Your task to perform on an android device: set default search engine in the chrome app Image 0: 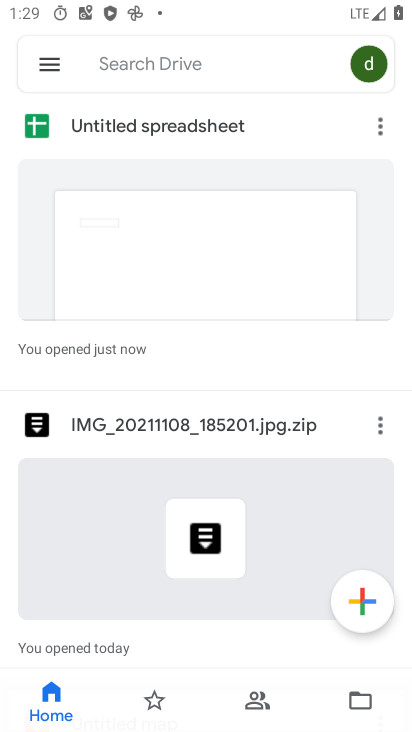
Step 0: press home button
Your task to perform on an android device: set default search engine in the chrome app Image 1: 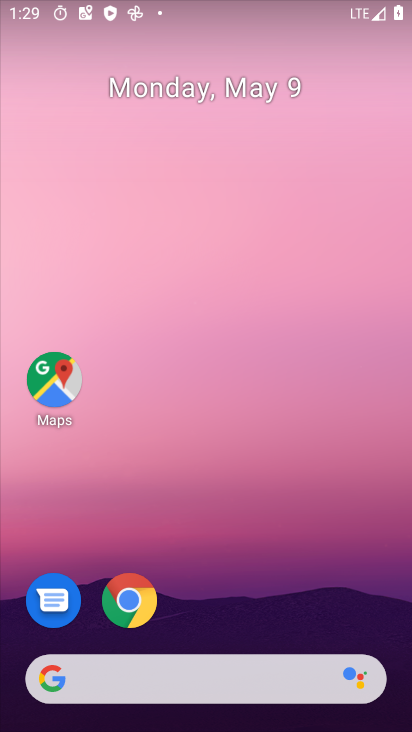
Step 1: drag from (233, 614) to (208, 256)
Your task to perform on an android device: set default search engine in the chrome app Image 2: 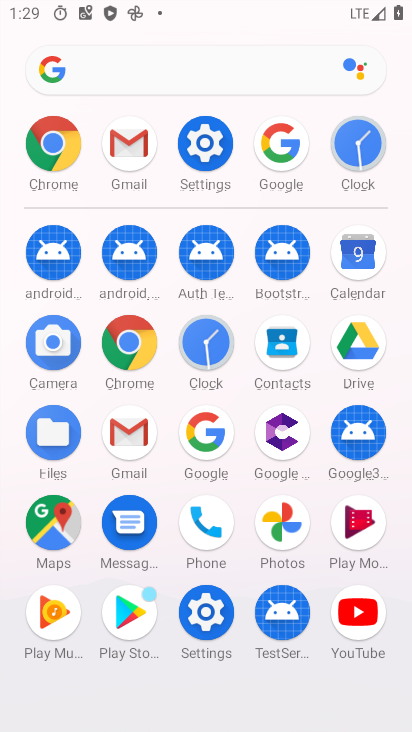
Step 2: click (131, 349)
Your task to perform on an android device: set default search engine in the chrome app Image 3: 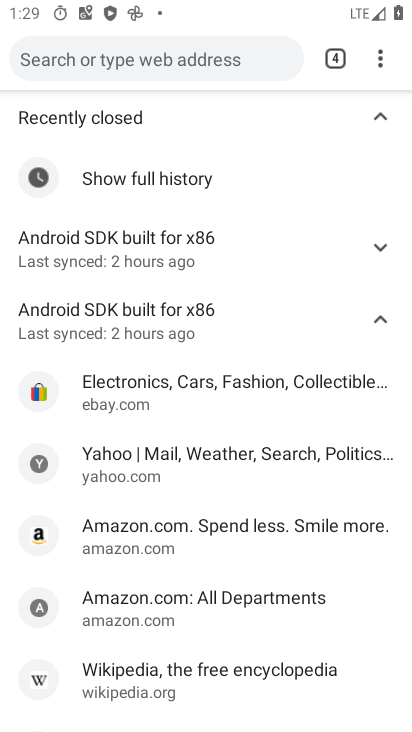
Step 3: click (375, 65)
Your task to perform on an android device: set default search engine in the chrome app Image 4: 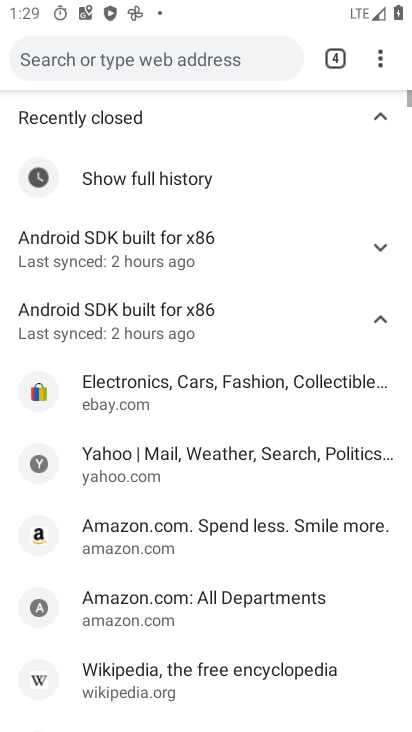
Step 4: click (385, 69)
Your task to perform on an android device: set default search engine in the chrome app Image 5: 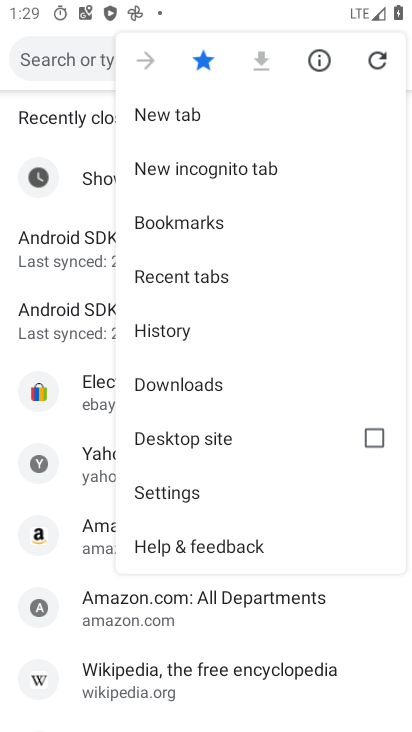
Step 5: click (193, 505)
Your task to perform on an android device: set default search engine in the chrome app Image 6: 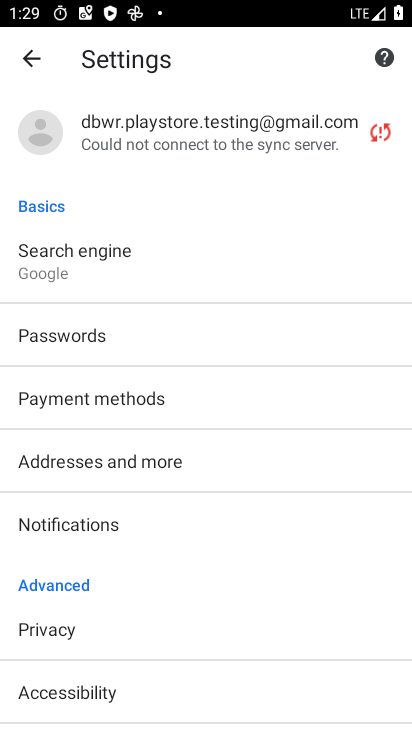
Step 6: click (159, 257)
Your task to perform on an android device: set default search engine in the chrome app Image 7: 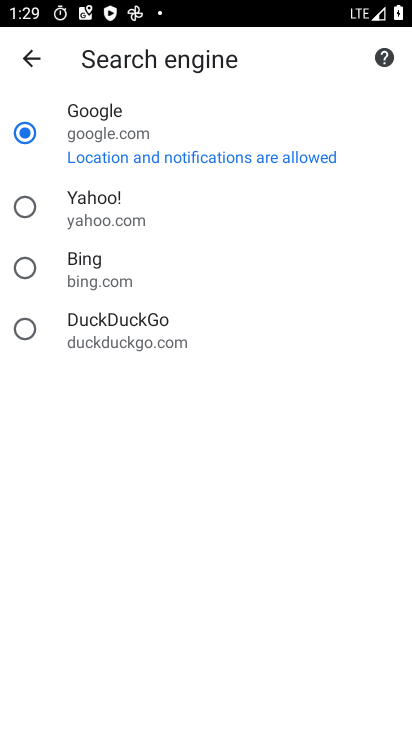
Step 7: click (132, 140)
Your task to perform on an android device: set default search engine in the chrome app Image 8: 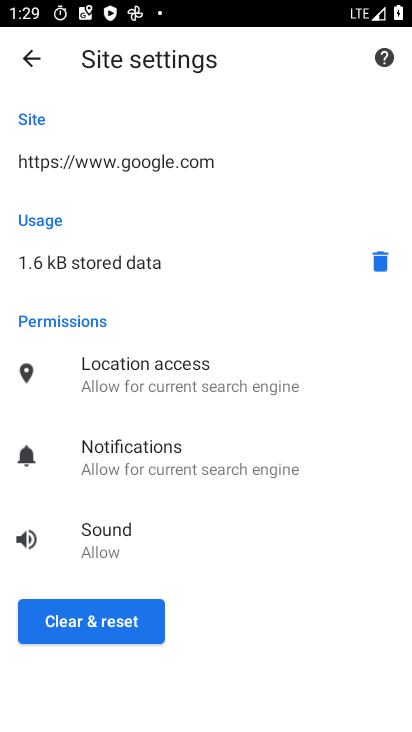
Step 8: click (145, 632)
Your task to perform on an android device: set default search engine in the chrome app Image 9: 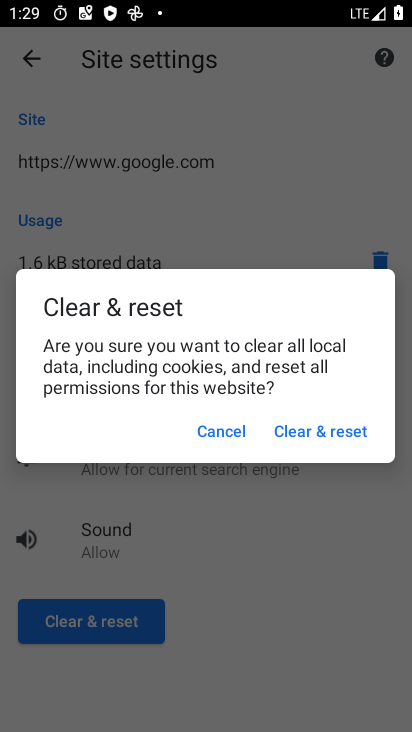
Step 9: click (317, 437)
Your task to perform on an android device: set default search engine in the chrome app Image 10: 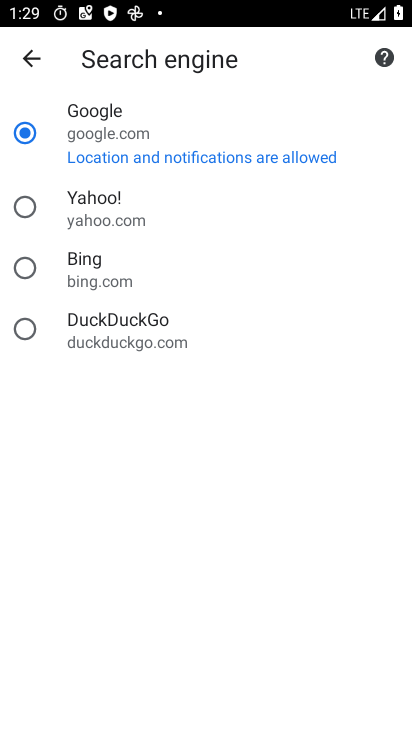
Step 10: task complete